Your task to perform on an android device: Find coffee shops on Maps Image 0: 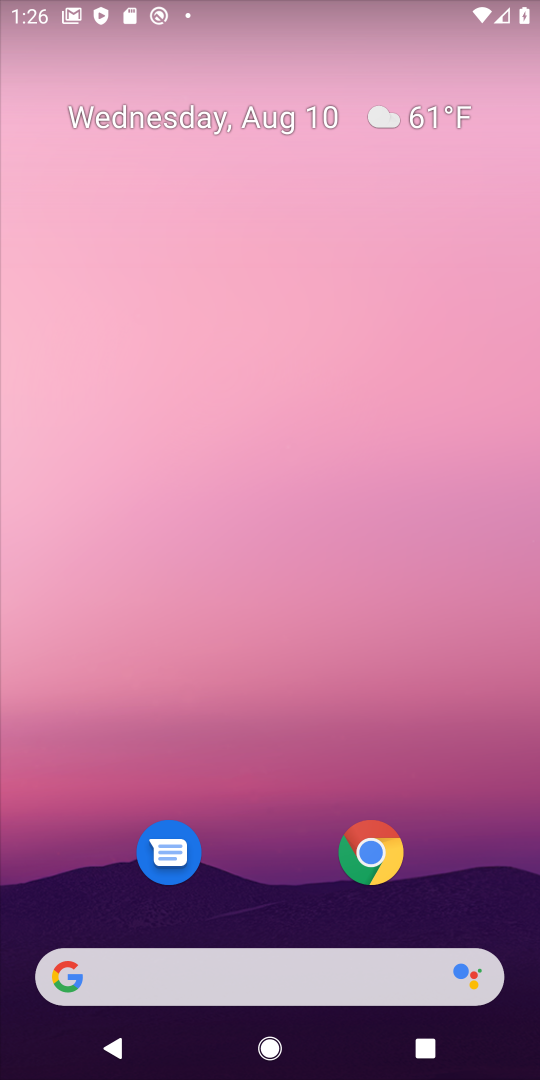
Step 0: drag from (258, 873) to (276, 206)
Your task to perform on an android device: Find coffee shops on Maps Image 1: 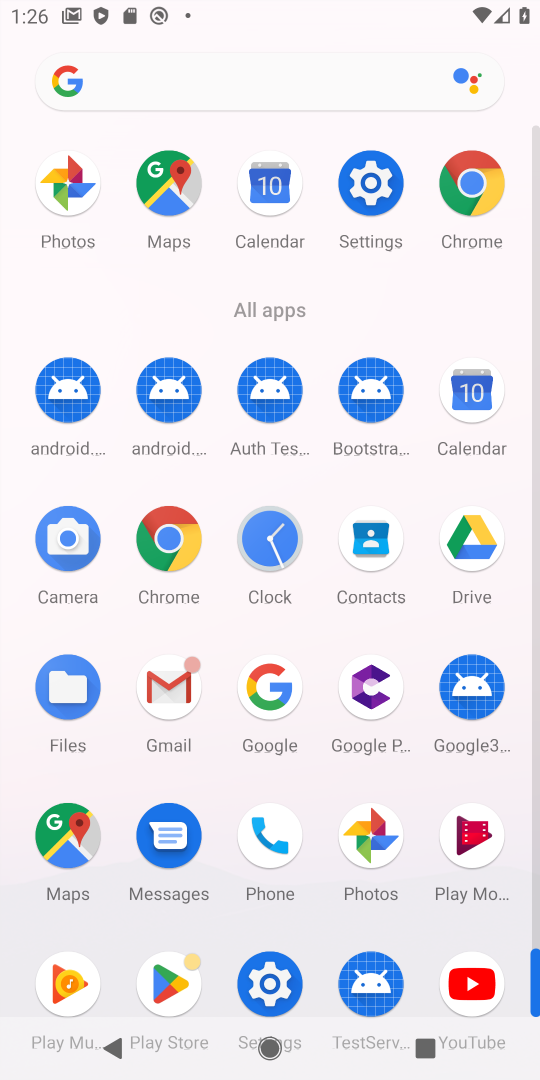
Step 1: click (78, 831)
Your task to perform on an android device: Find coffee shops on Maps Image 2: 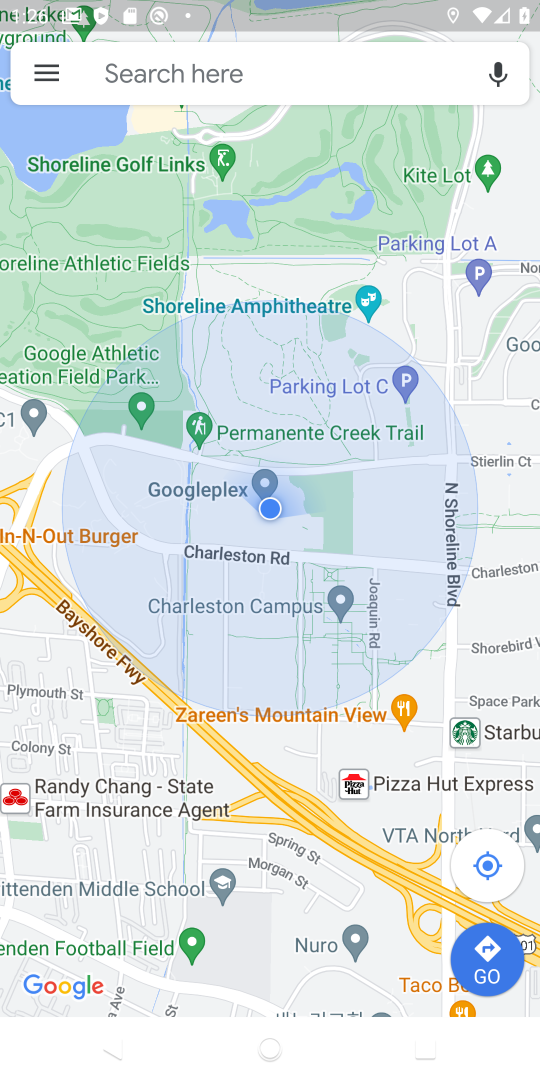
Step 2: click (192, 79)
Your task to perform on an android device: Find coffee shops on Maps Image 3: 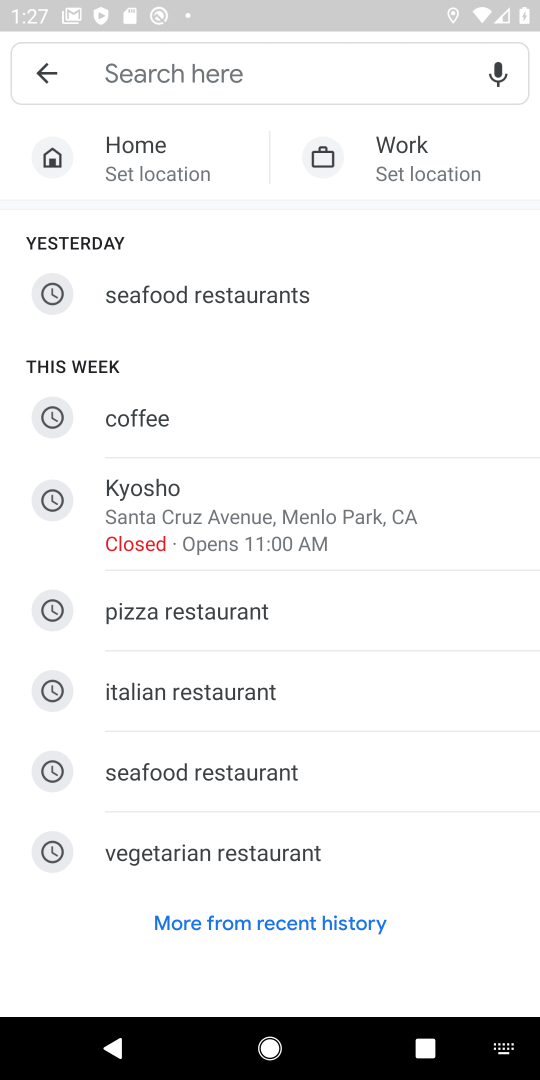
Step 3: type "coffee shops"
Your task to perform on an android device: Find coffee shops on Maps Image 4: 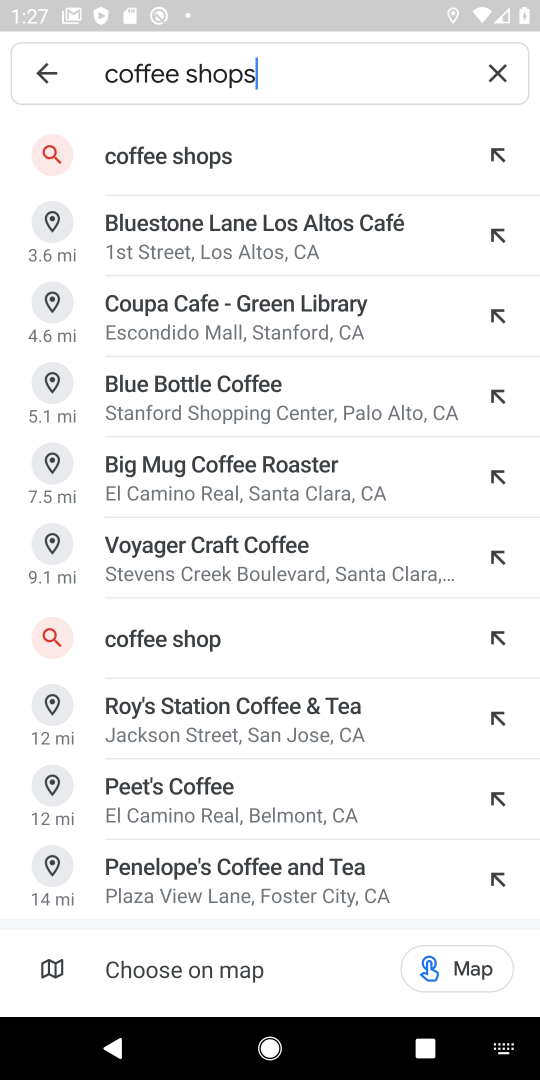
Step 4: click (252, 145)
Your task to perform on an android device: Find coffee shops on Maps Image 5: 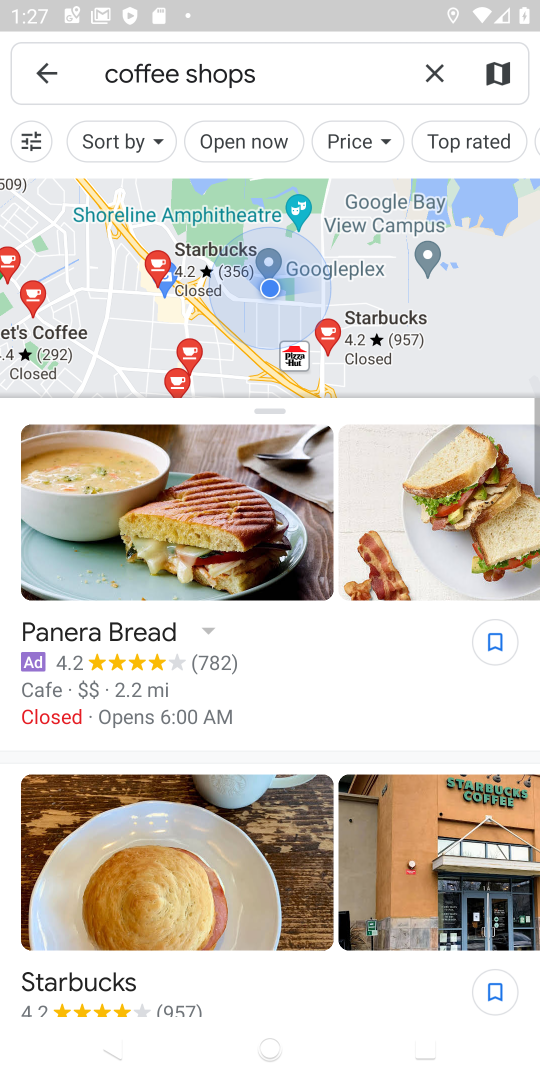
Step 5: task complete